Your task to perform on an android device: Go to sound settings Image 0: 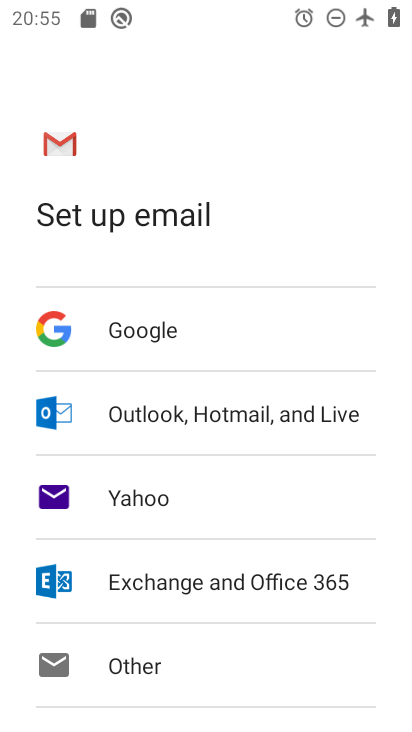
Step 0: press home button
Your task to perform on an android device: Go to sound settings Image 1: 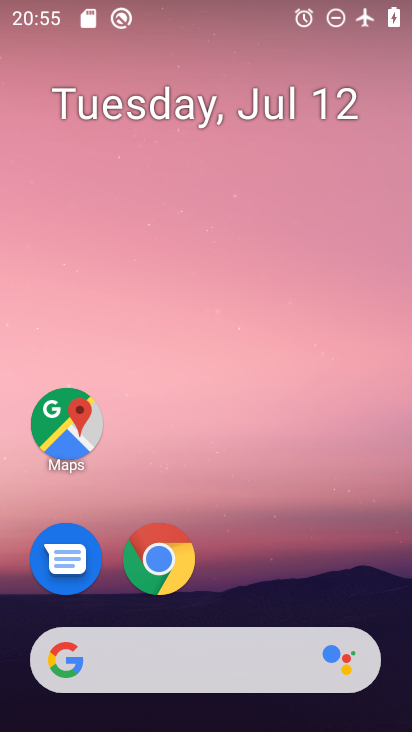
Step 1: drag from (371, 556) to (356, 113)
Your task to perform on an android device: Go to sound settings Image 2: 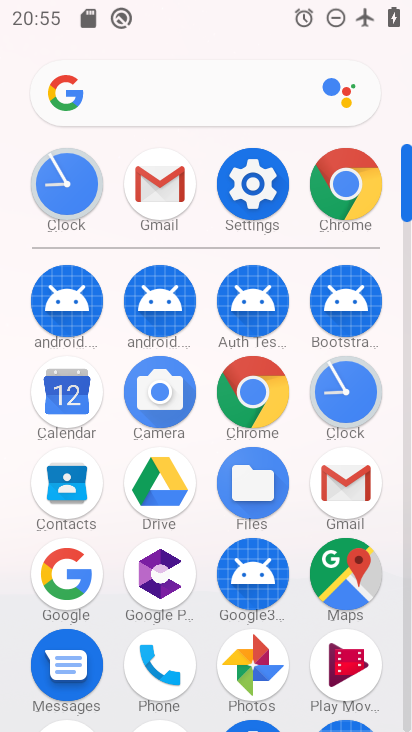
Step 2: click (258, 195)
Your task to perform on an android device: Go to sound settings Image 3: 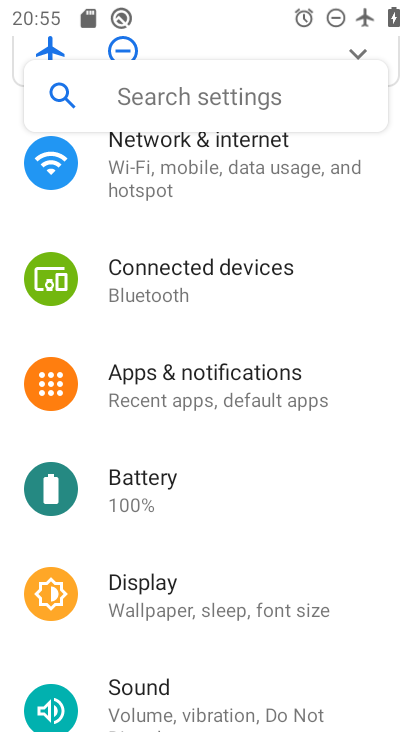
Step 3: drag from (353, 240) to (354, 372)
Your task to perform on an android device: Go to sound settings Image 4: 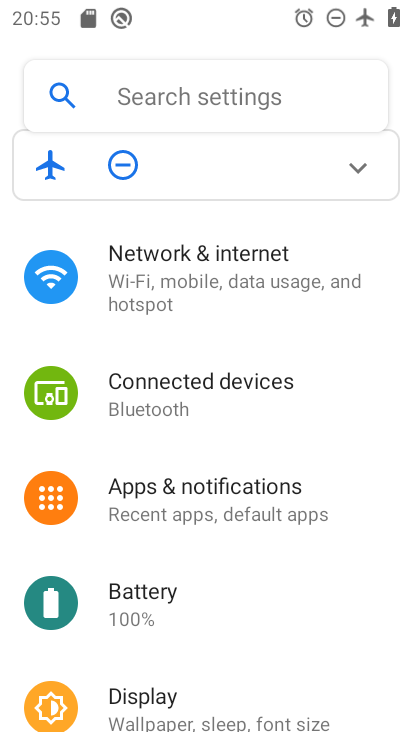
Step 4: drag from (368, 235) to (357, 423)
Your task to perform on an android device: Go to sound settings Image 5: 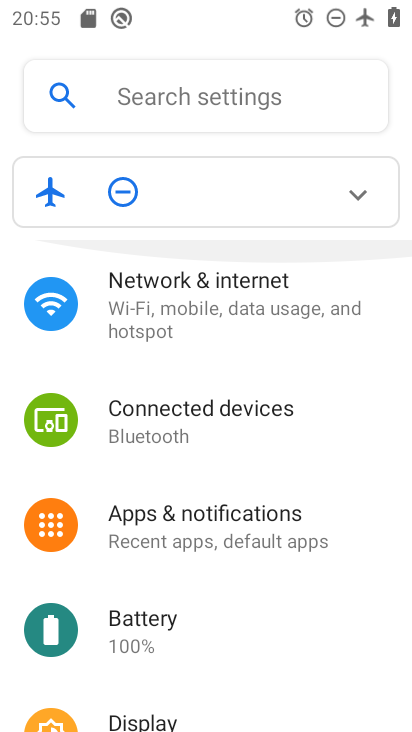
Step 5: drag from (357, 445) to (359, 283)
Your task to perform on an android device: Go to sound settings Image 6: 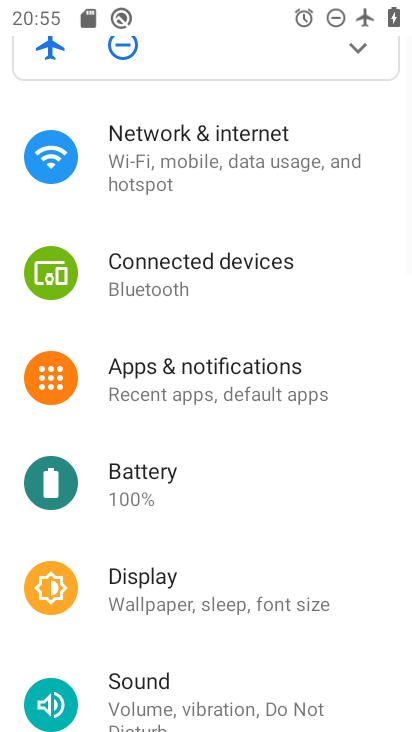
Step 6: drag from (361, 465) to (376, 329)
Your task to perform on an android device: Go to sound settings Image 7: 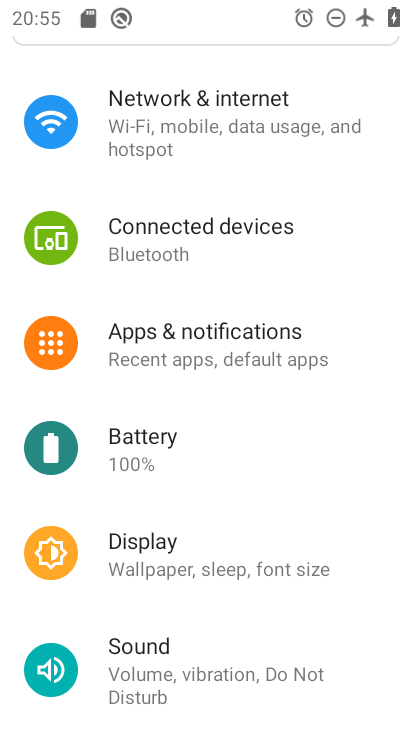
Step 7: drag from (369, 458) to (371, 310)
Your task to perform on an android device: Go to sound settings Image 8: 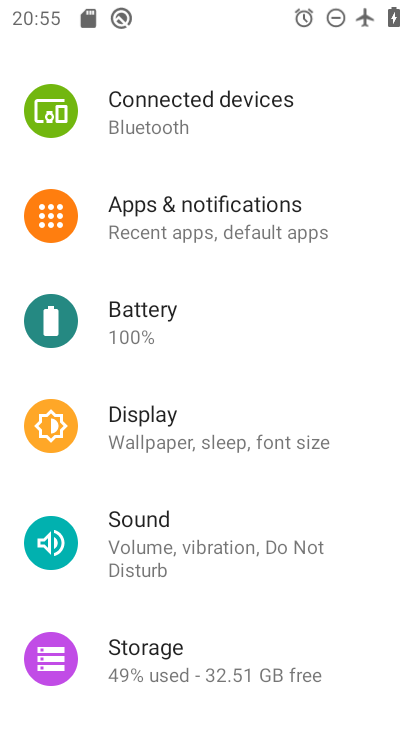
Step 8: drag from (371, 462) to (358, 341)
Your task to perform on an android device: Go to sound settings Image 9: 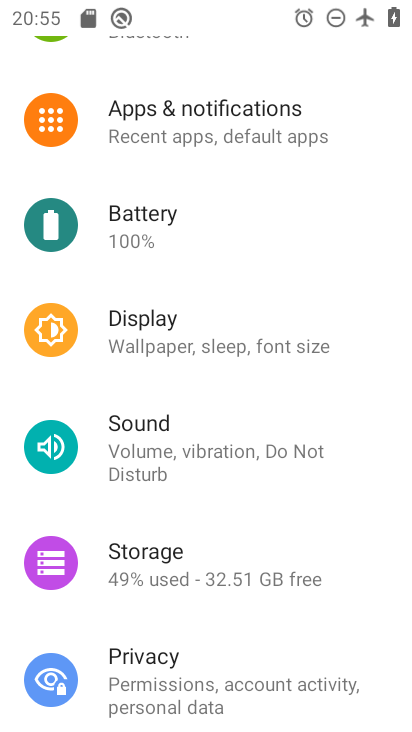
Step 9: drag from (356, 450) to (357, 330)
Your task to perform on an android device: Go to sound settings Image 10: 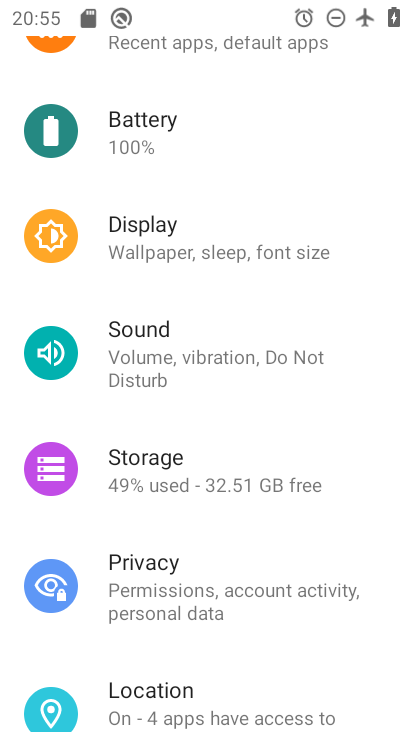
Step 10: drag from (359, 409) to (364, 300)
Your task to perform on an android device: Go to sound settings Image 11: 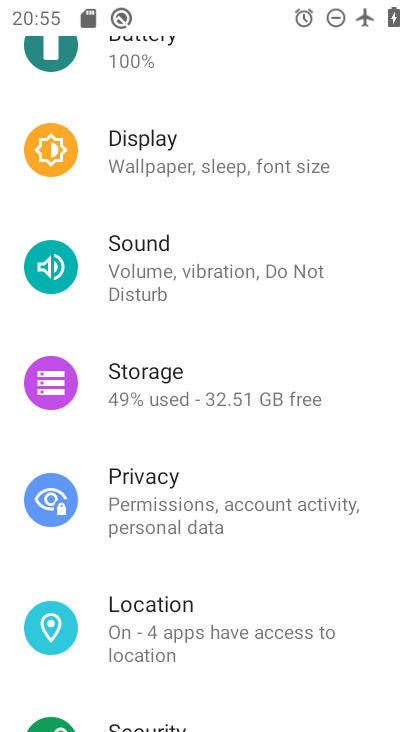
Step 11: click (342, 276)
Your task to perform on an android device: Go to sound settings Image 12: 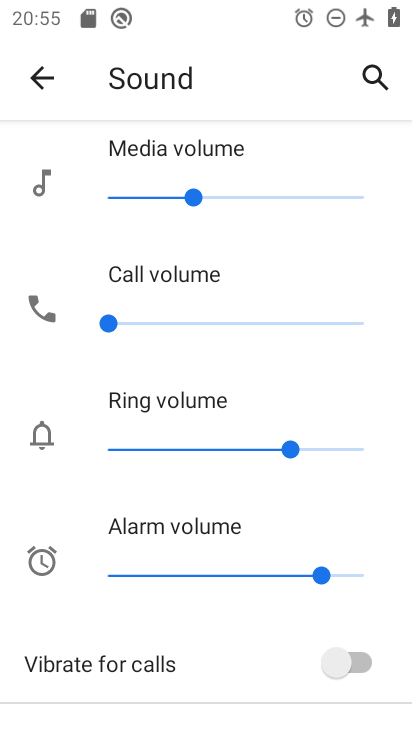
Step 12: task complete